Your task to perform on an android device: How much does a 3 bedroom apartment rent for in Houston? Image 0: 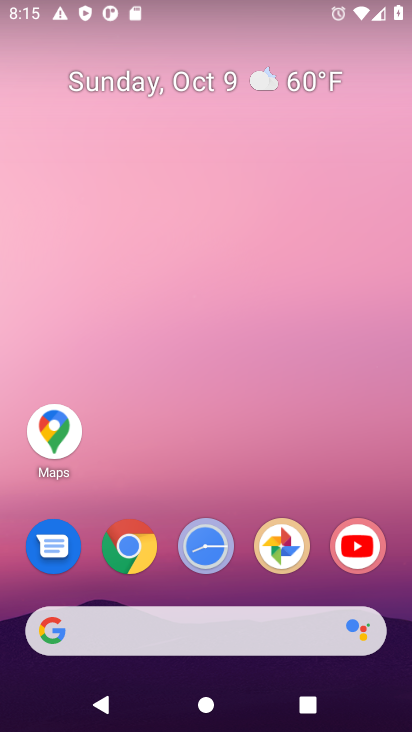
Step 0: click (126, 547)
Your task to perform on an android device: How much does a 3 bedroom apartment rent for in Houston? Image 1: 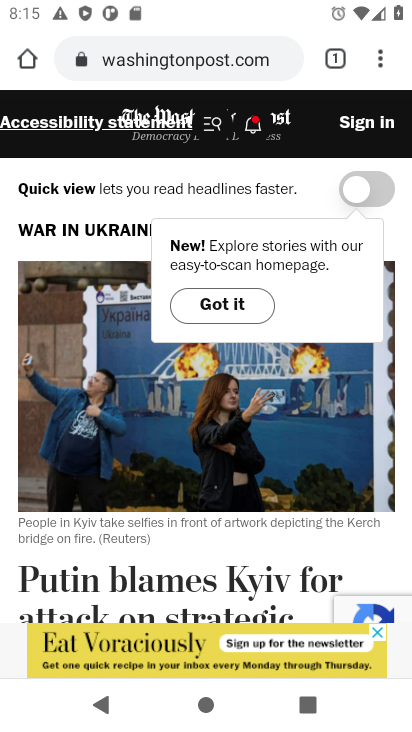
Step 1: click (225, 63)
Your task to perform on an android device: How much does a 3 bedroom apartment rent for in Houston? Image 2: 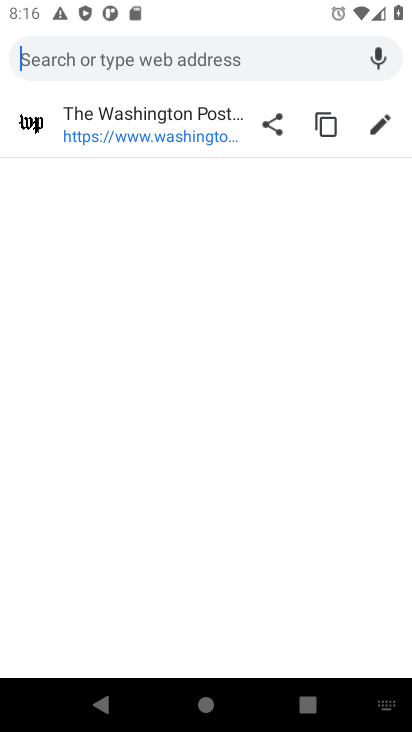
Step 2: type "3 bedroom apartment in houston"
Your task to perform on an android device: How much does a 3 bedroom apartment rent for in Houston? Image 3: 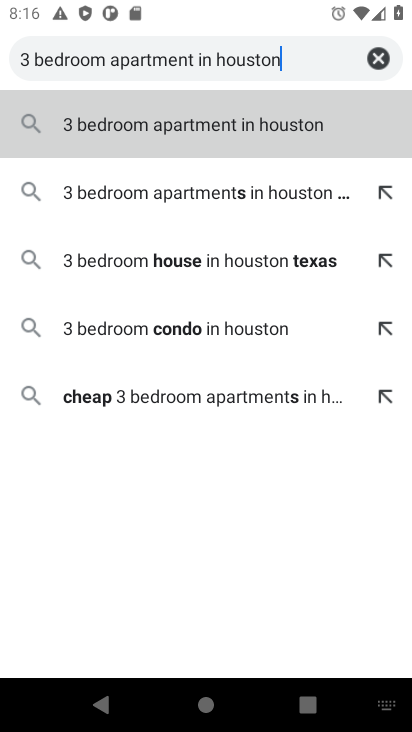
Step 3: type ""
Your task to perform on an android device: How much does a 3 bedroom apartment rent for in Houston? Image 4: 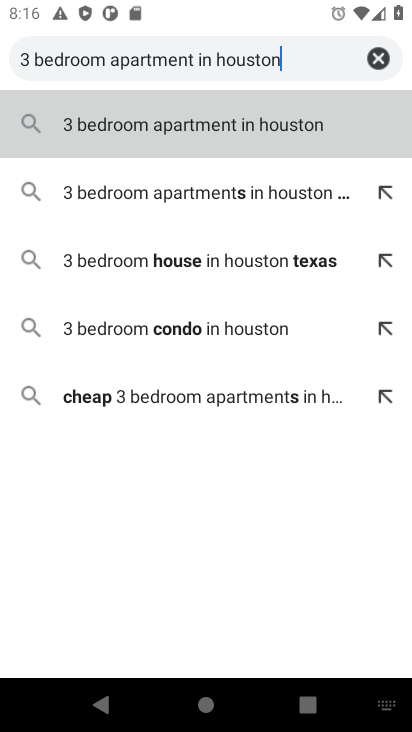
Step 4: press enter
Your task to perform on an android device: How much does a 3 bedroom apartment rent for in Houston? Image 5: 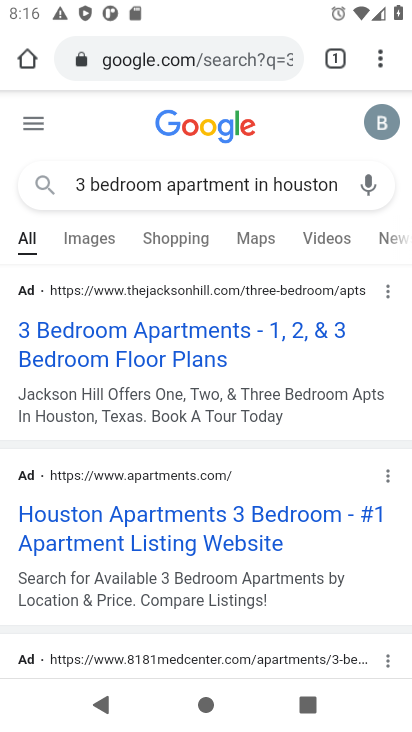
Step 5: click (193, 518)
Your task to perform on an android device: How much does a 3 bedroom apartment rent for in Houston? Image 6: 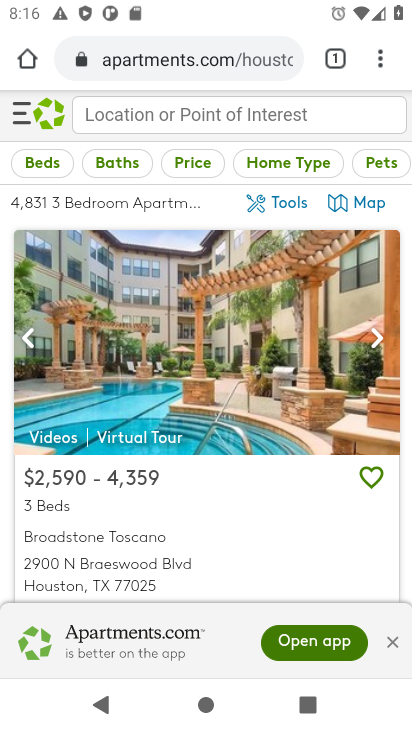
Step 6: drag from (165, 513) to (180, 335)
Your task to perform on an android device: How much does a 3 bedroom apartment rent for in Houston? Image 7: 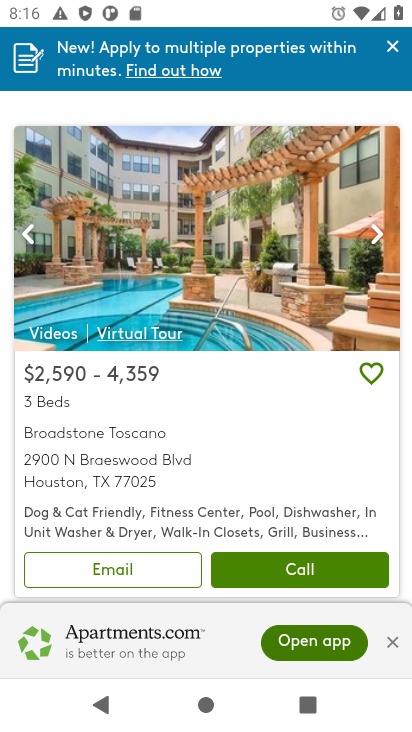
Step 7: drag from (184, 430) to (196, 348)
Your task to perform on an android device: How much does a 3 bedroom apartment rent for in Houston? Image 8: 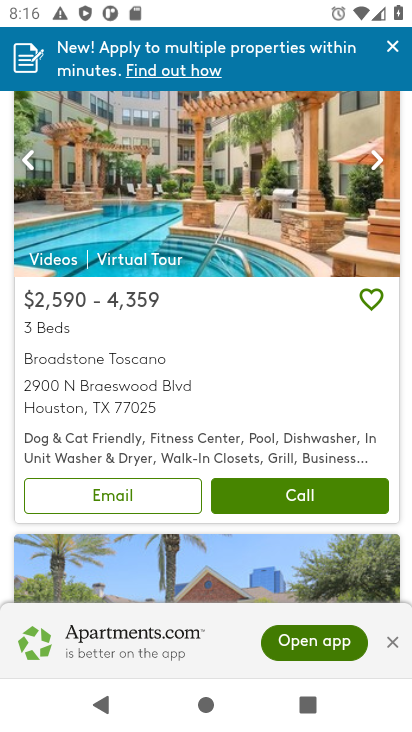
Step 8: click (196, 348)
Your task to perform on an android device: How much does a 3 bedroom apartment rent for in Houston? Image 9: 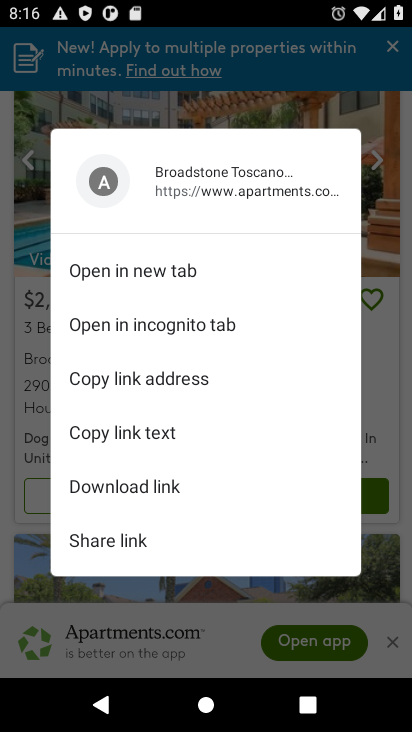
Step 9: click (211, 648)
Your task to perform on an android device: How much does a 3 bedroom apartment rent for in Houston? Image 10: 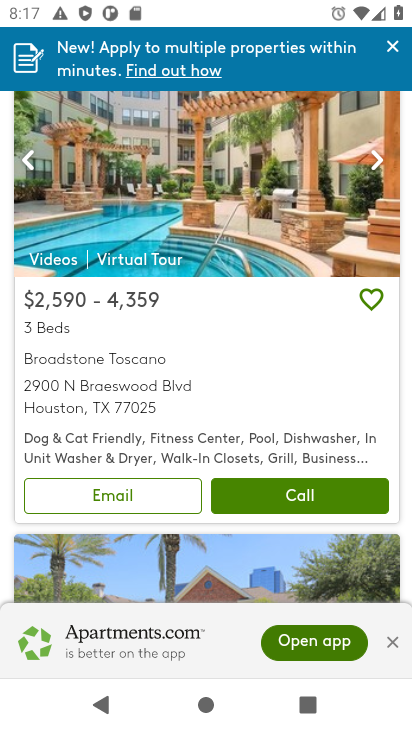
Step 10: task complete